Your task to perform on an android device: turn on wifi Image 0: 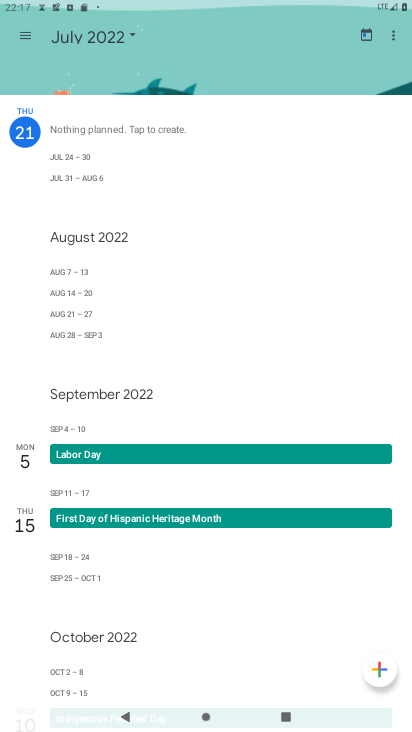
Step 0: press home button
Your task to perform on an android device: turn on wifi Image 1: 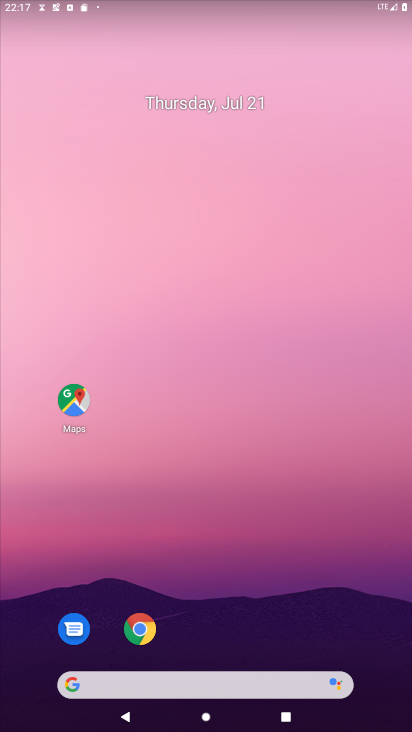
Step 1: drag from (311, 455) to (377, 69)
Your task to perform on an android device: turn on wifi Image 2: 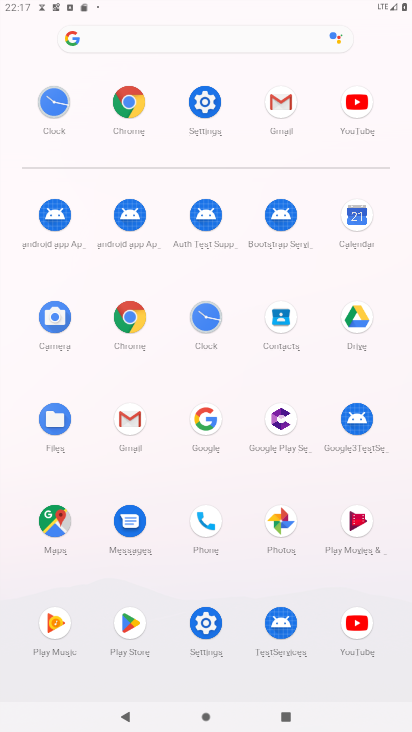
Step 2: click (198, 102)
Your task to perform on an android device: turn on wifi Image 3: 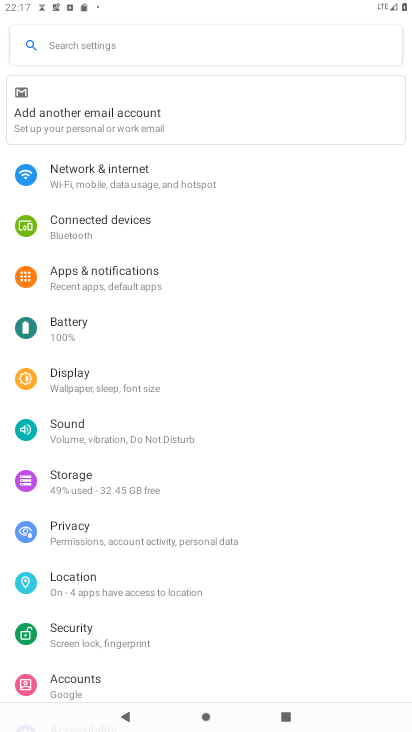
Step 3: click (169, 167)
Your task to perform on an android device: turn on wifi Image 4: 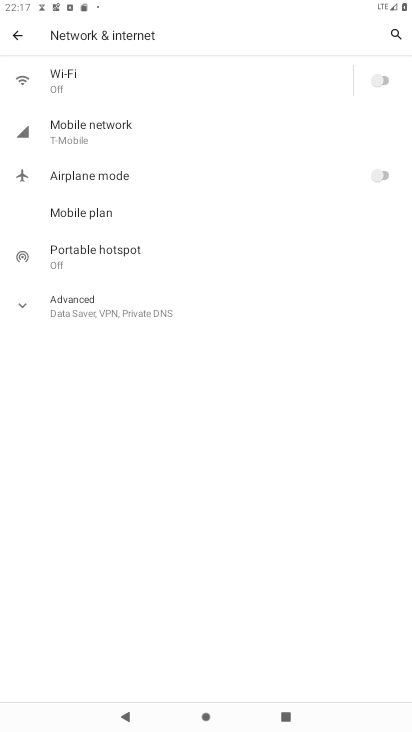
Step 4: click (377, 77)
Your task to perform on an android device: turn on wifi Image 5: 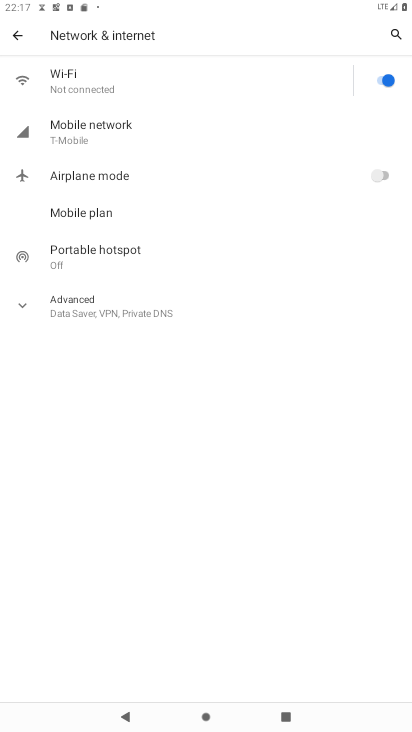
Step 5: task complete